Your task to perform on an android device: Go to battery settings Image 0: 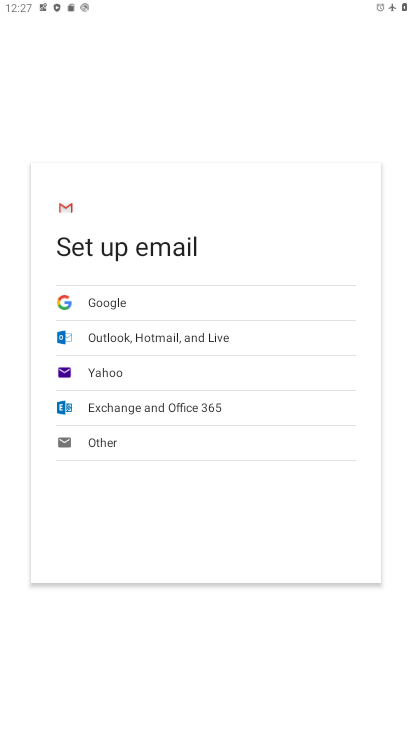
Step 0: press home button
Your task to perform on an android device: Go to battery settings Image 1: 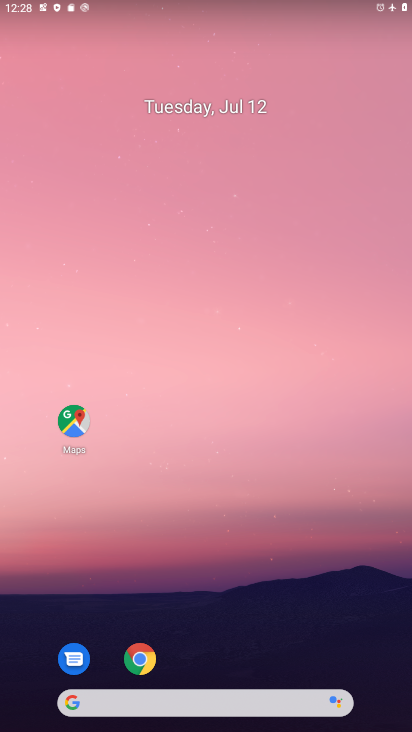
Step 1: drag from (179, 620) to (200, 128)
Your task to perform on an android device: Go to battery settings Image 2: 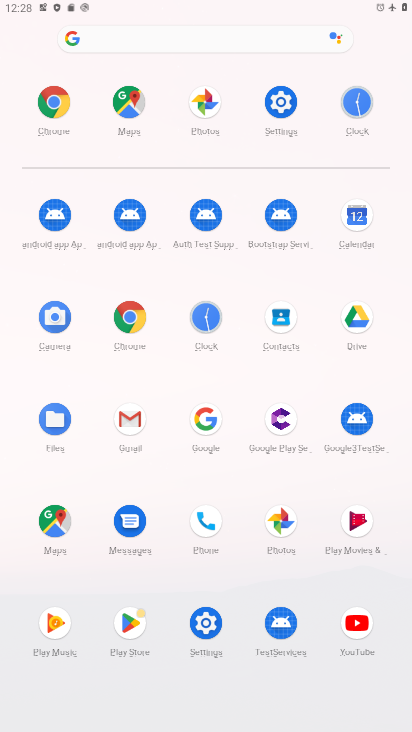
Step 2: click (209, 608)
Your task to perform on an android device: Go to battery settings Image 3: 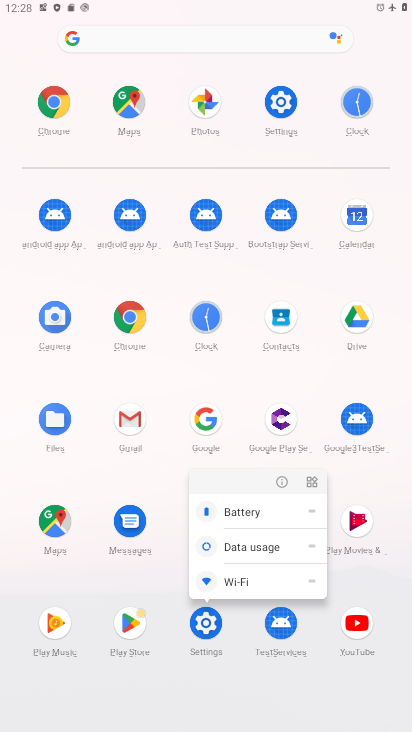
Step 3: click (259, 515)
Your task to perform on an android device: Go to battery settings Image 4: 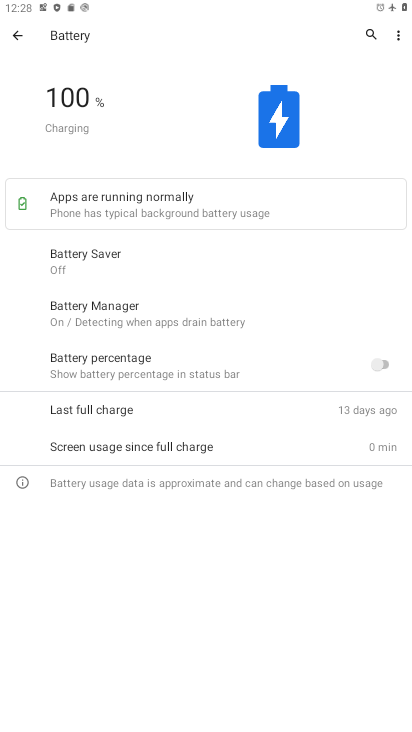
Step 4: drag from (155, 394) to (254, 195)
Your task to perform on an android device: Go to battery settings Image 5: 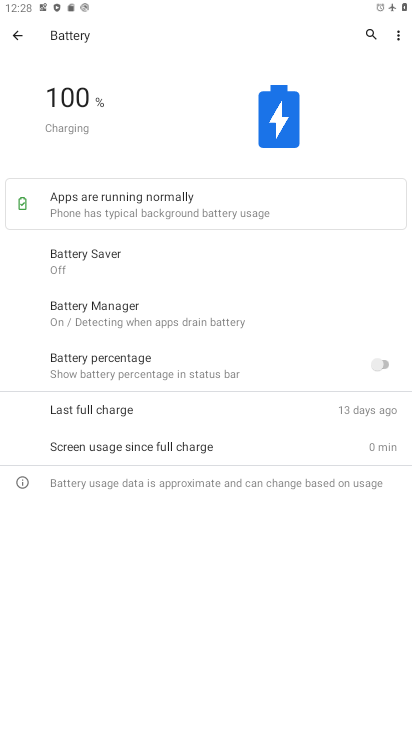
Step 5: drag from (234, 592) to (228, 158)
Your task to perform on an android device: Go to battery settings Image 6: 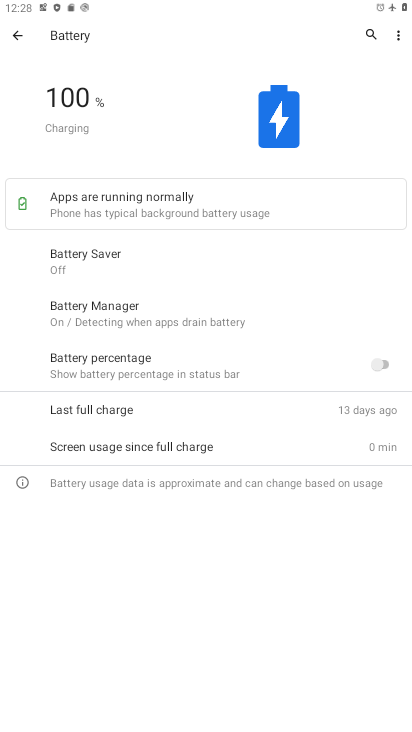
Step 6: click (27, 39)
Your task to perform on an android device: Go to battery settings Image 7: 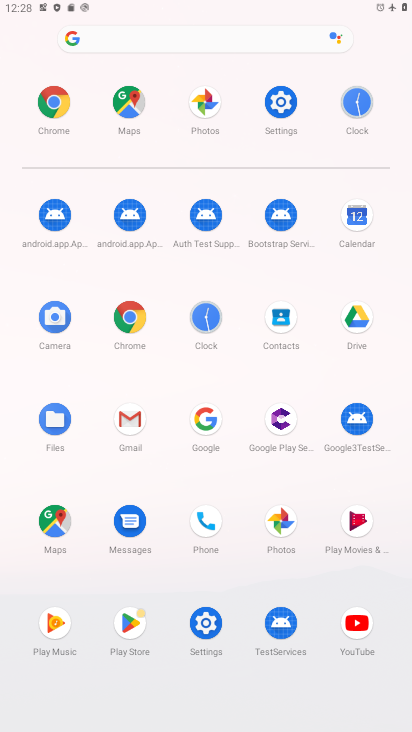
Step 7: click (202, 629)
Your task to perform on an android device: Go to battery settings Image 8: 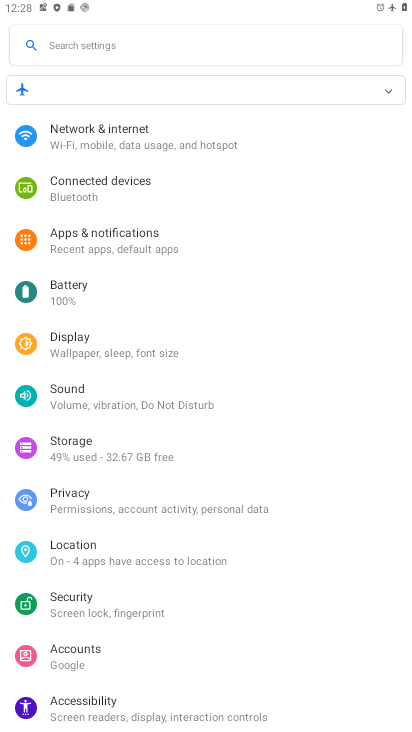
Step 8: click (79, 292)
Your task to perform on an android device: Go to battery settings Image 9: 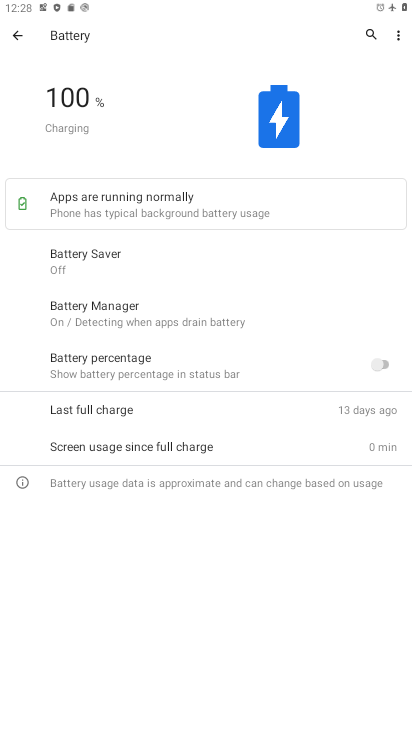
Step 9: task complete